Your task to perform on an android device: Clear the cart on ebay.com. Search for macbook pro on ebay.com, select the first entry, add it to the cart, then select checkout. Image 0: 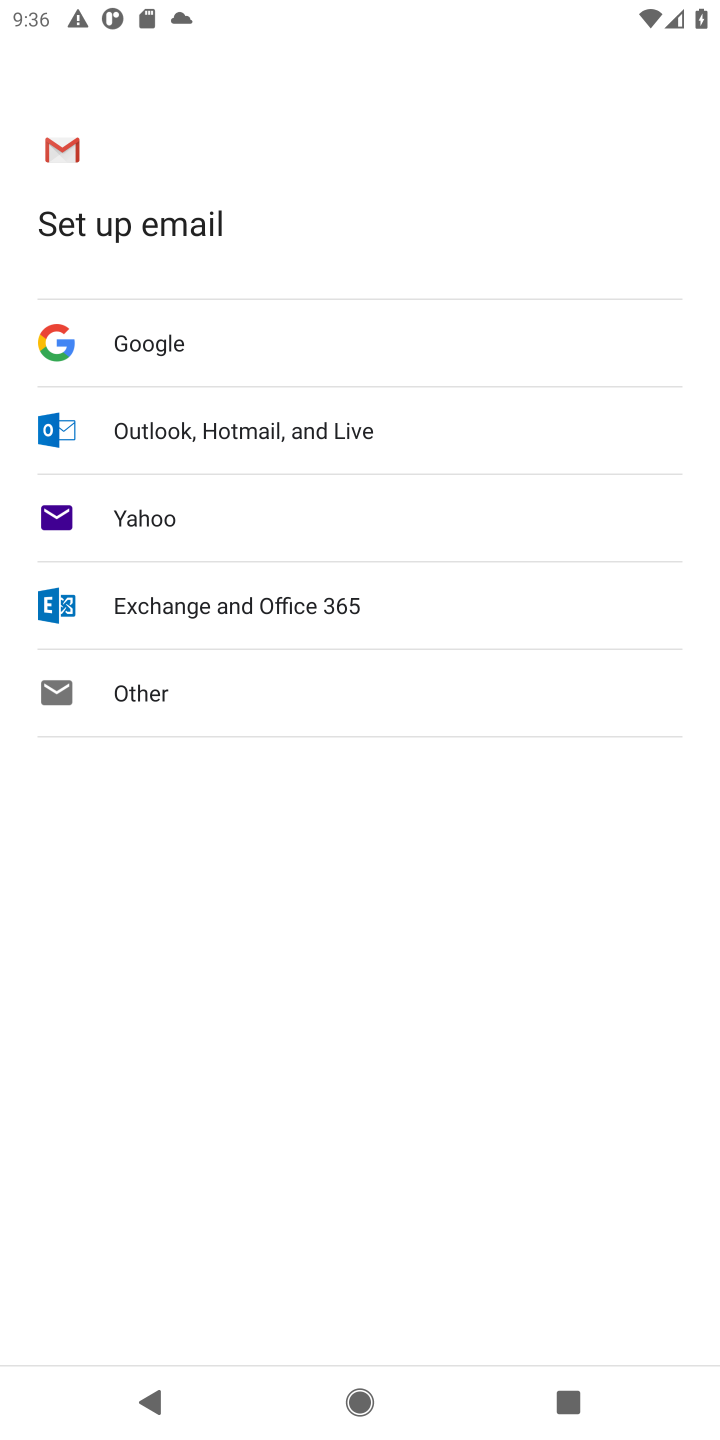
Step 0: press home button
Your task to perform on an android device: Clear the cart on ebay.com. Search for macbook pro on ebay.com, select the first entry, add it to the cart, then select checkout. Image 1: 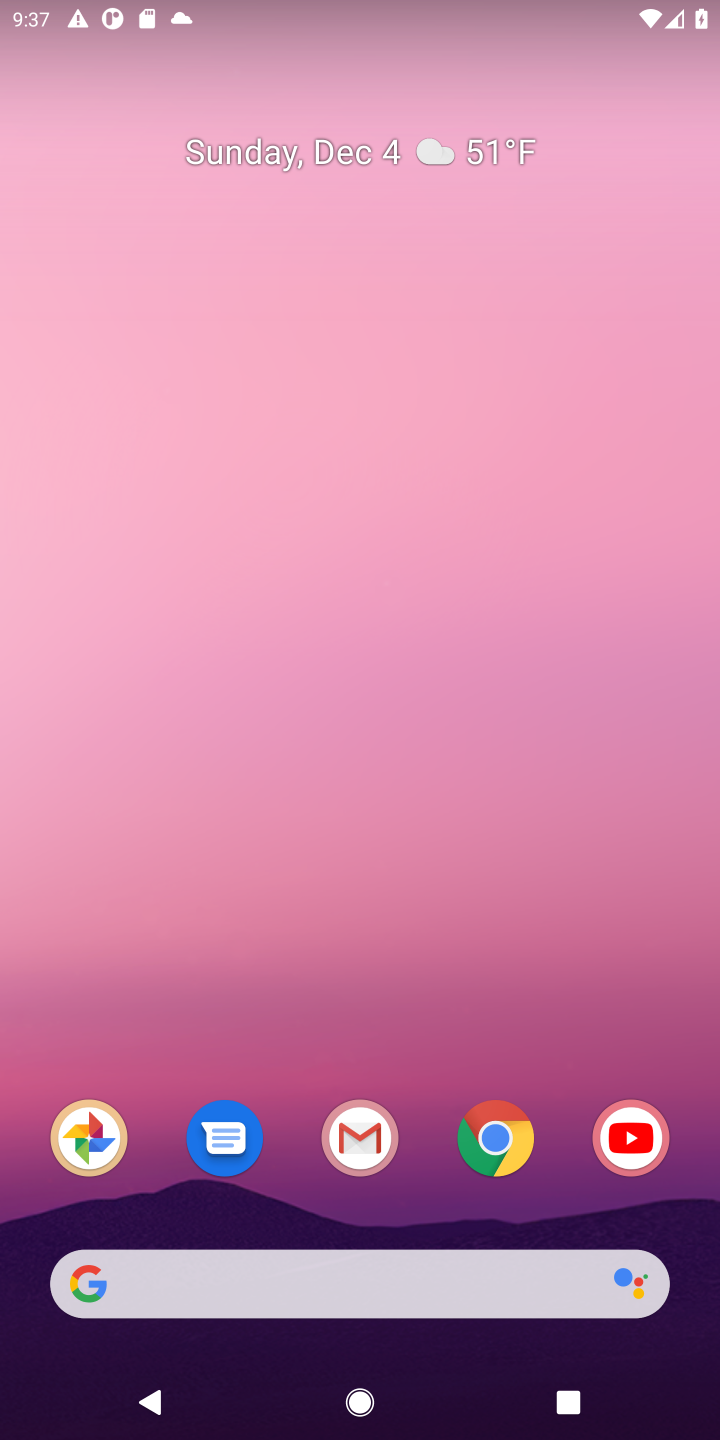
Step 1: click (486, 1139)
Your task to perform on an android device: Clear the cart on ebay.com. Search for macbook pro on ebay.com, select the first entry, add it to the cart, then select checkout. Image 2: 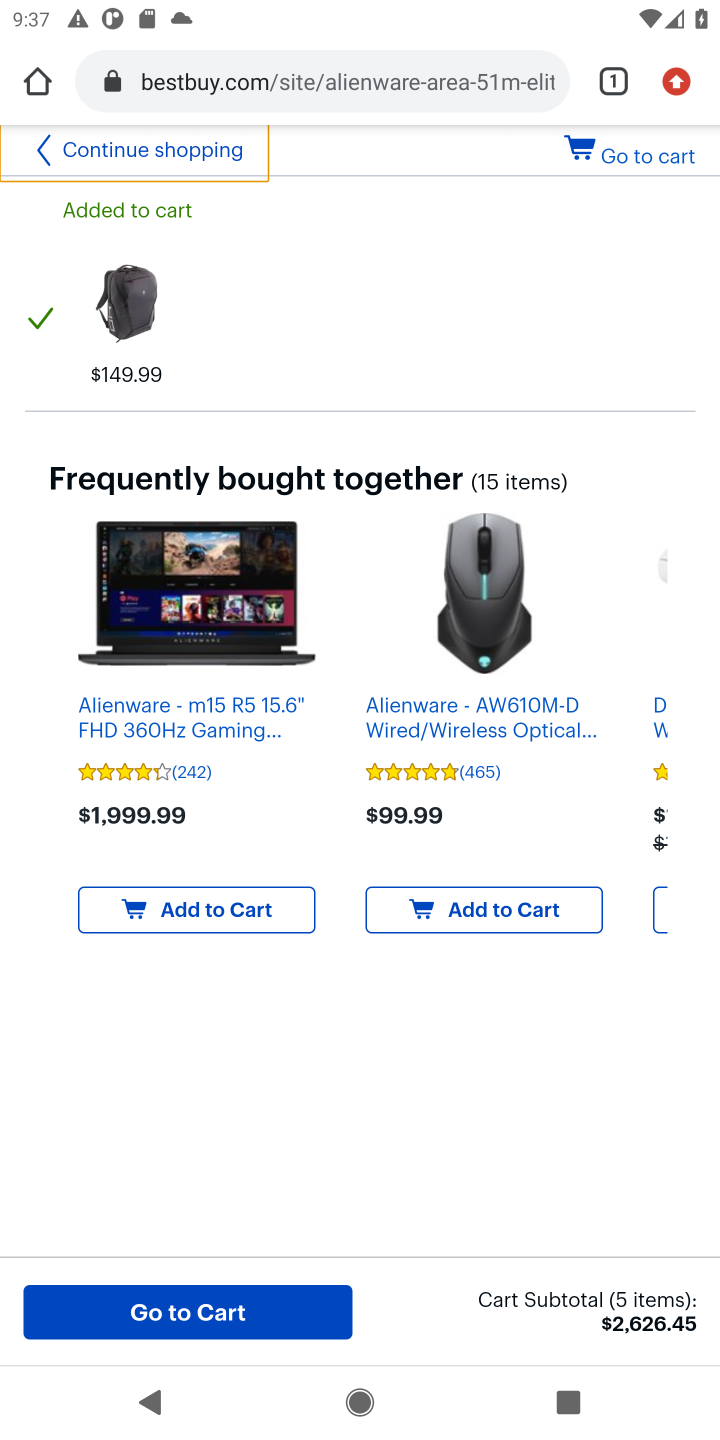
Step 2: click (485, 84)
Your task to perform on an android device: Clear the cart on ebay.com. Search for macbook pro on ebay.com, select the first entry, add it to the cart, then select checkout. Image 3: 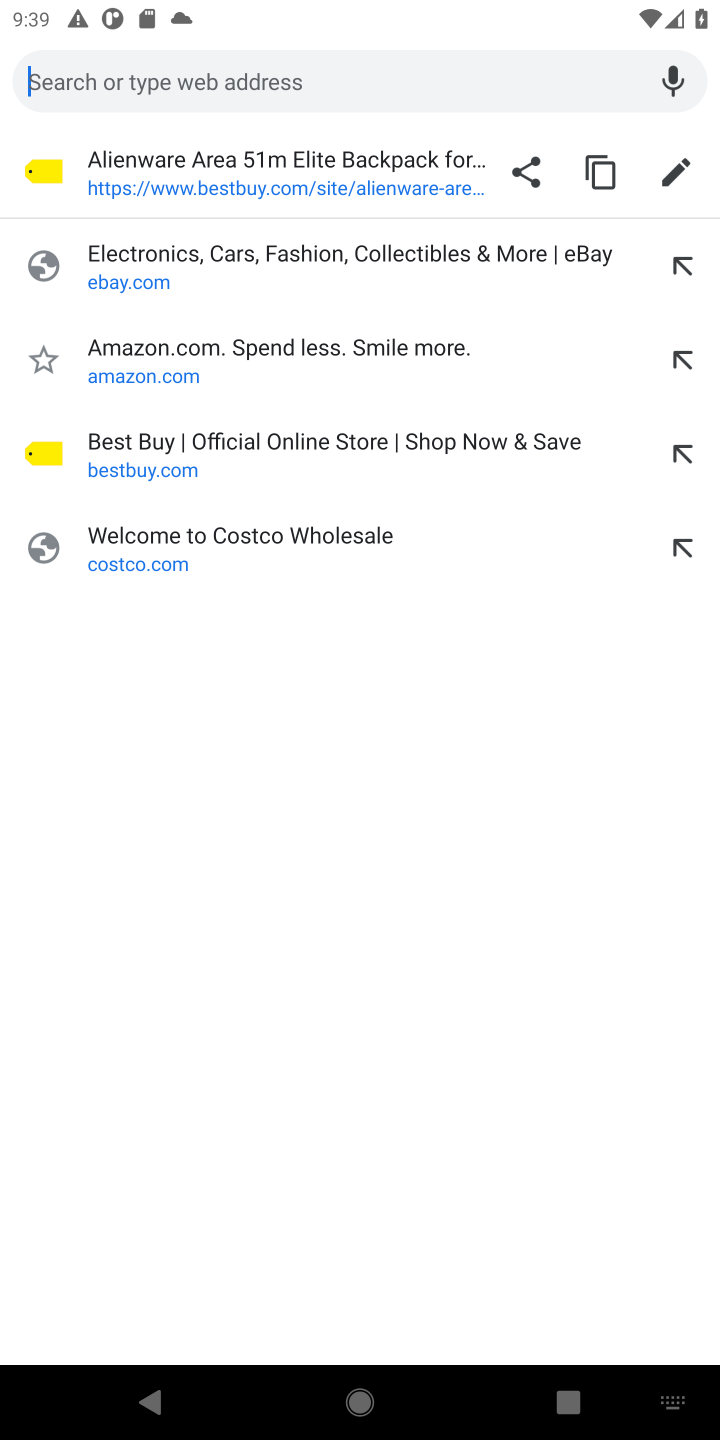
Step 3: click (126, 248)
Your task to perform on an android device: Clear the cart on ebay.com. Search for macbook pro on ebay.com, select the first entry, add it to the cart, then select checkout. Image 4: 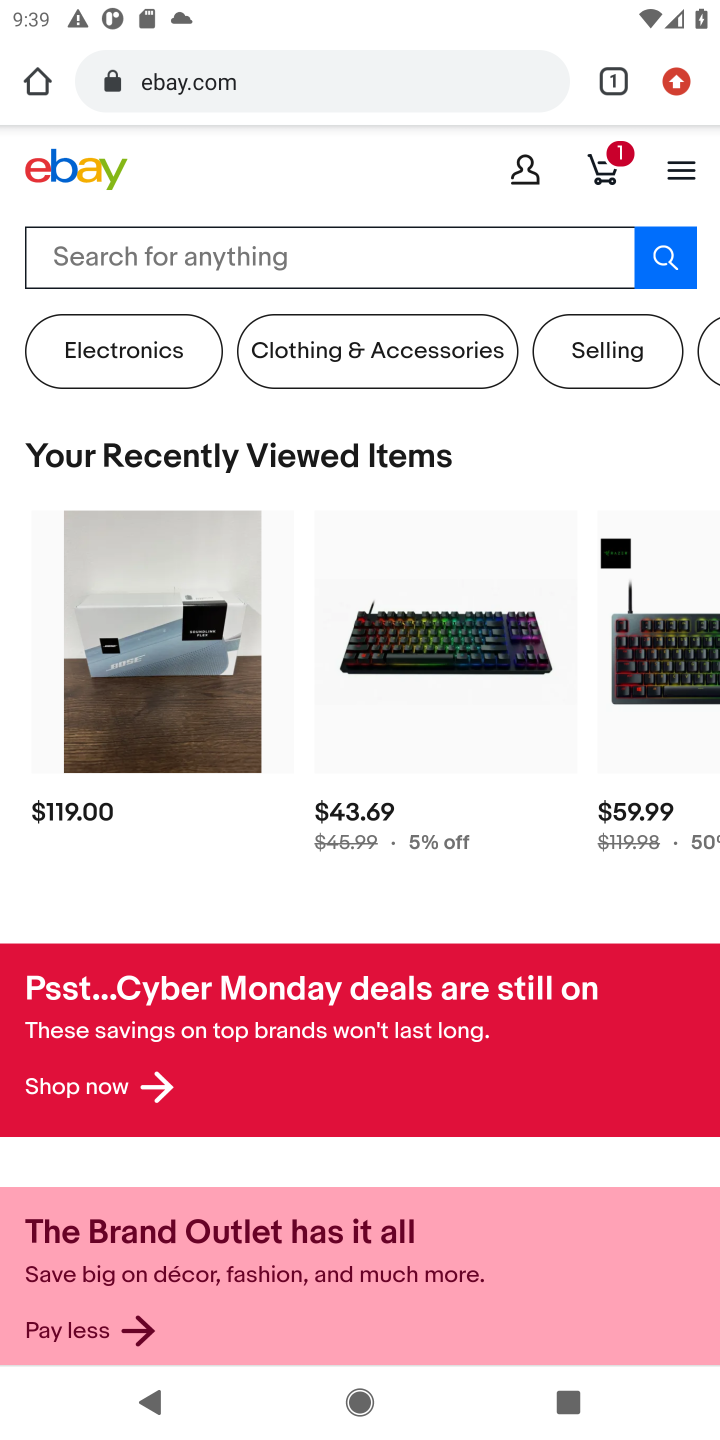
Step 4: click (610, 168)
Your task to perform on an android device: Clear the cart on ebay.com. Search for macbook pro on ebay.com, select the first entry, add it to the cart, then select checkout. Image 5: 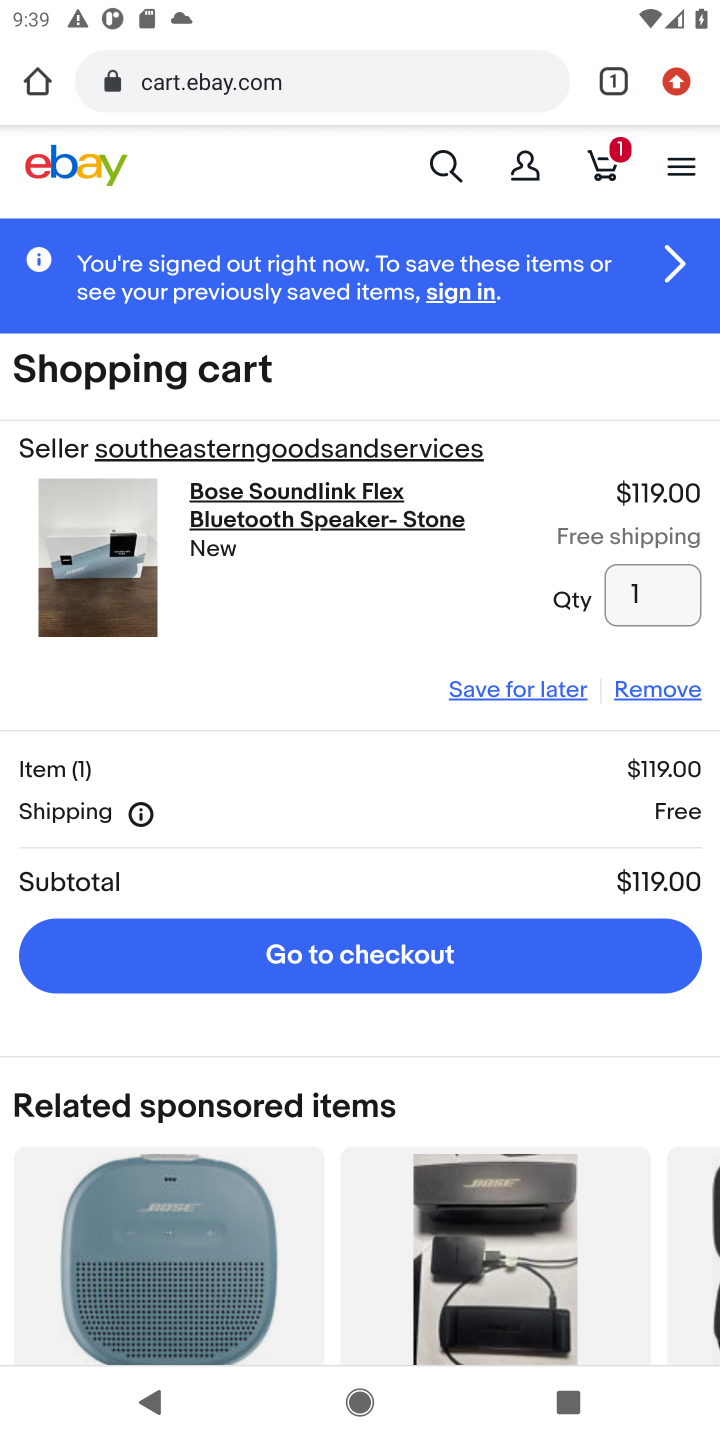
Step 5: click (640, 694)
Your task to perform on an android device: Clear the cart on ebay.com. Search for macbook pro on ebay.com, select the first entry, add it to the cart, then select checkout. Image 6: 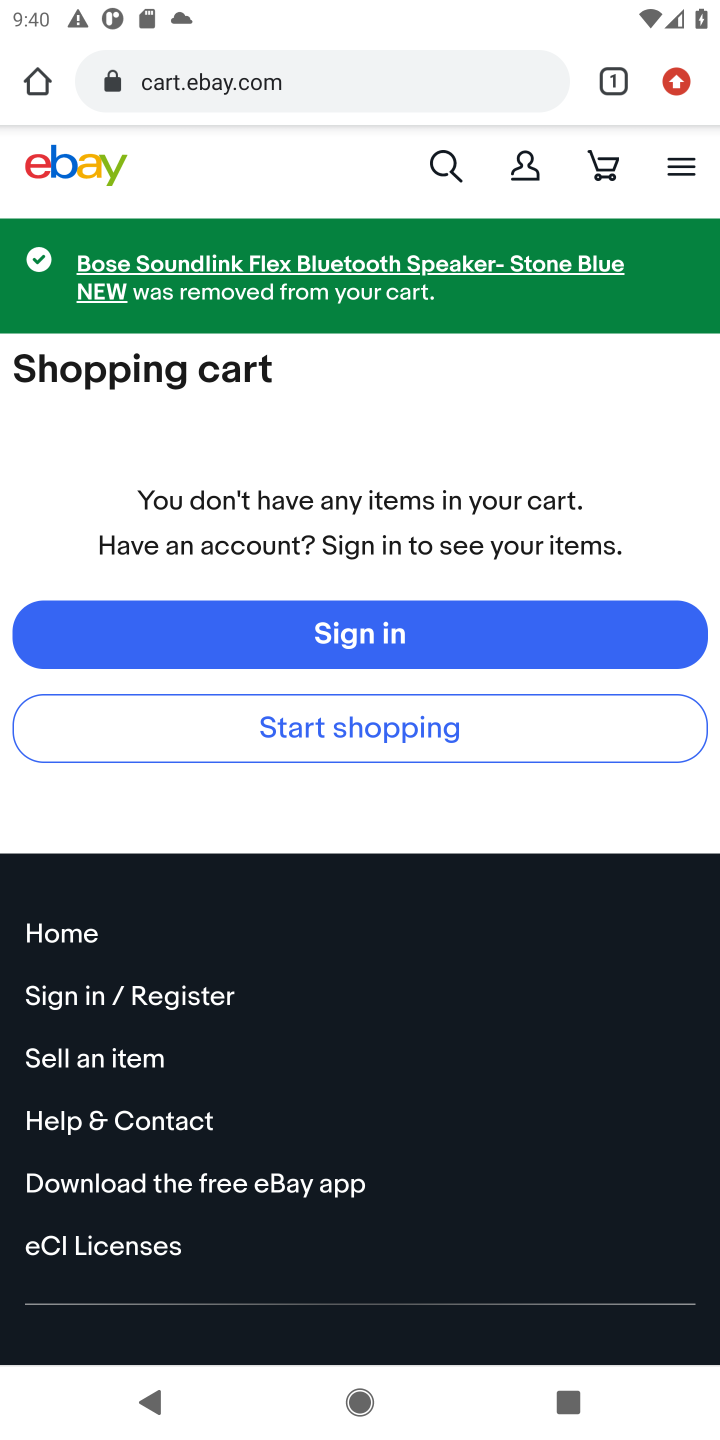
Step 6: click (440, 170)
Your task to perform on an android device: Clear the cart on ebay.com. Search for macbook pro on ebay.com, select the first entry, add it to the cart, then select checkout. Image 7: 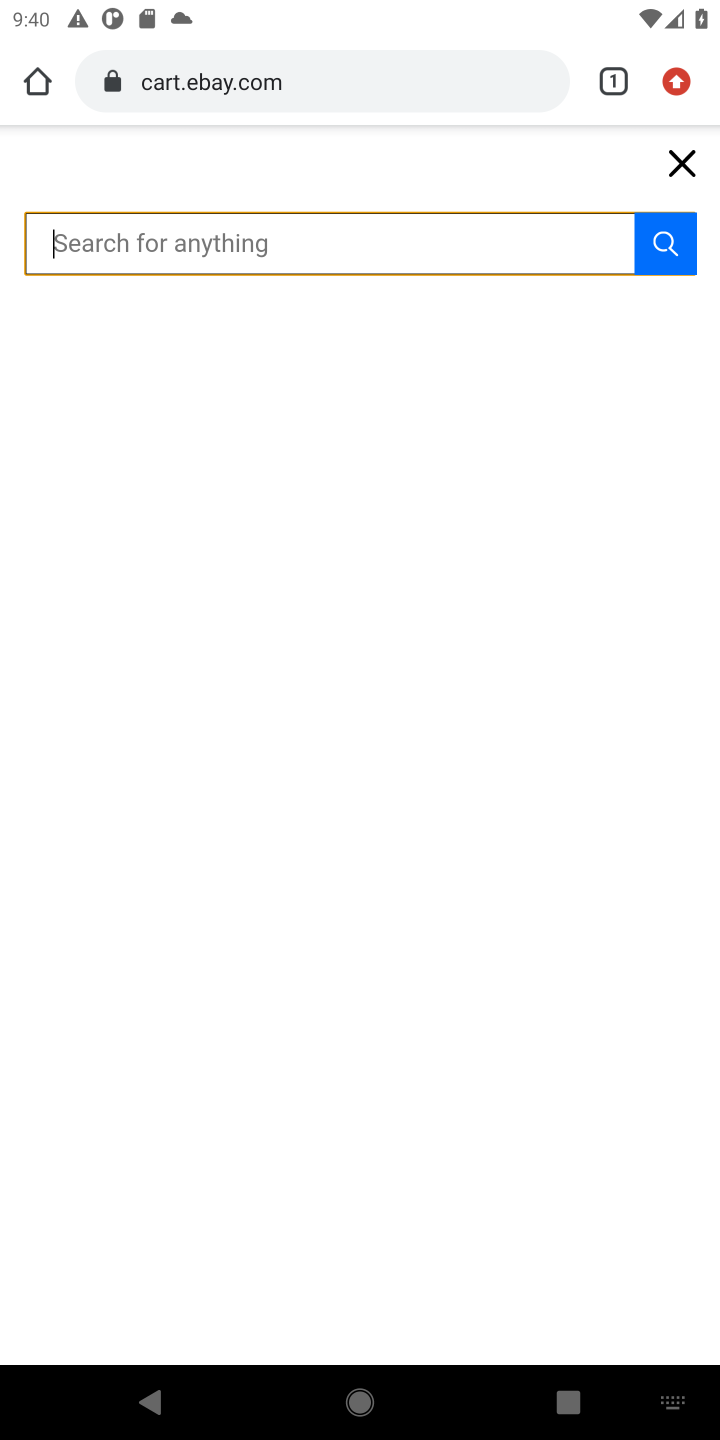
Step 7: press enter
Your task to perform on an android device: Clear the cart on ebay.com. Search for macbook pro on ebay.com, select the first entry, add it to the cart, then select checkout. Image 8: 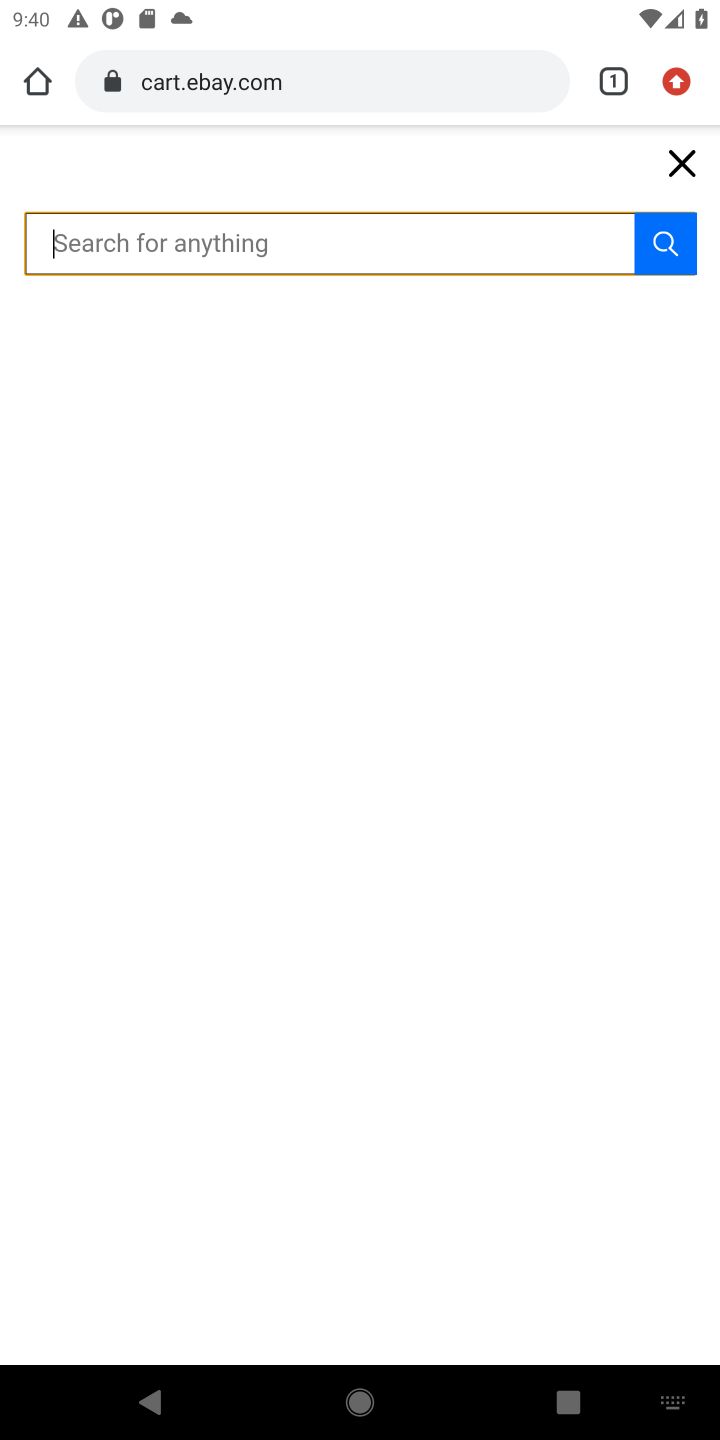
Step 8: type "macbook pro"
Your task to perform on an android device: Clear the cart on ebay.com. Search for macbook pro on ebay.com, select the first entry, add it to the cart, then select checkout. Image 9: 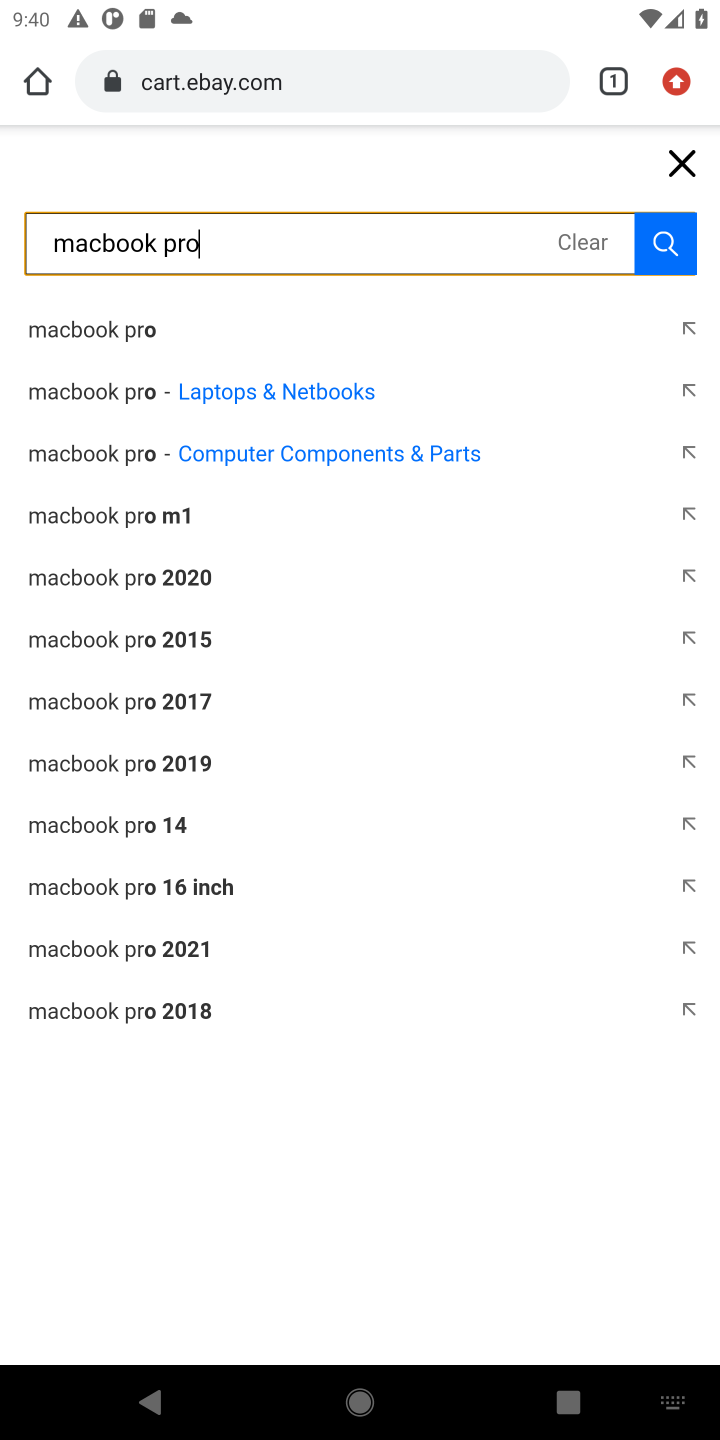
Step 9: click (124, 322)
Your task to perform on an android device: Clear the cart on ebay.com. Search for macbook pro on ebay.com, select the first entry, add it to the cart, then select checkout. Image 10: 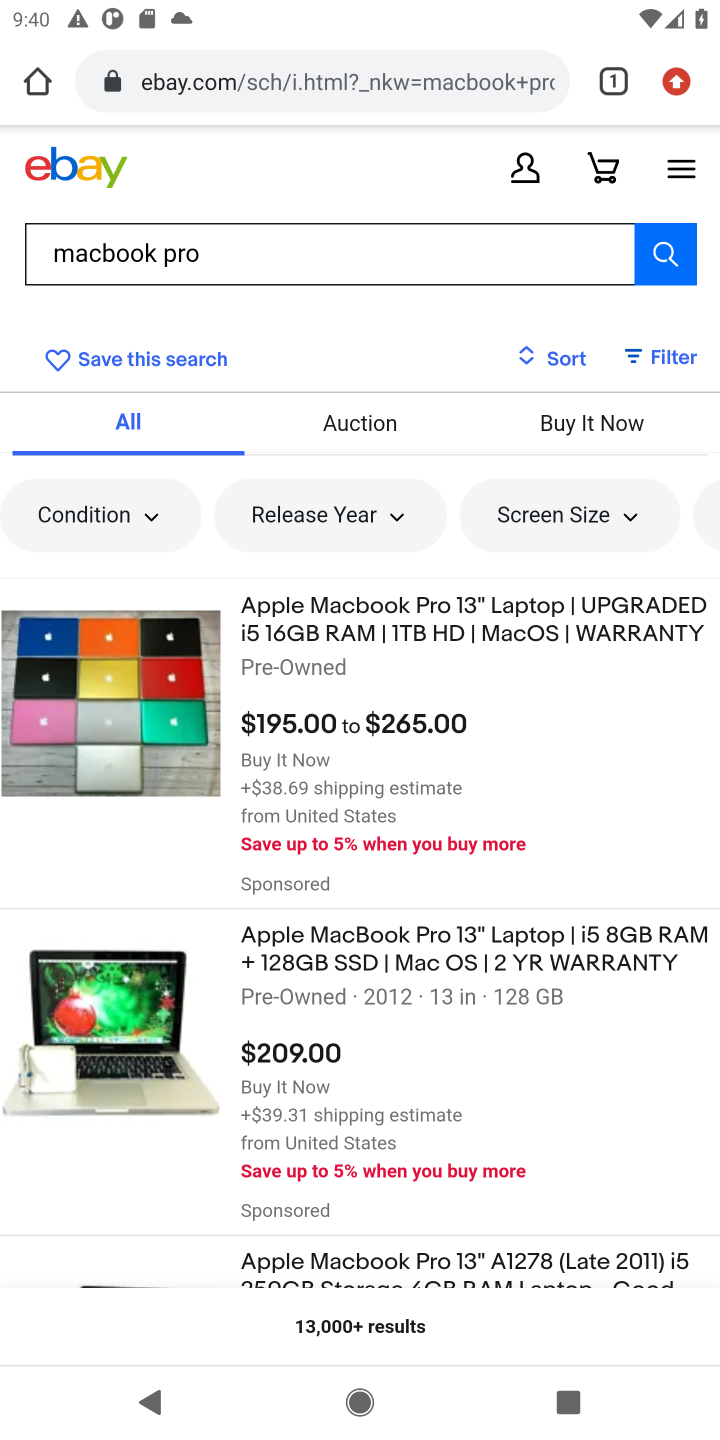
Step 10: drag from (407, 1030) to (351, 684)
Your task to perform on an android device: Clear the cart on ebay.com. Search for macbook pro on ebay.com, select the first entry, add it to the cart, then select checkout. Image 11: 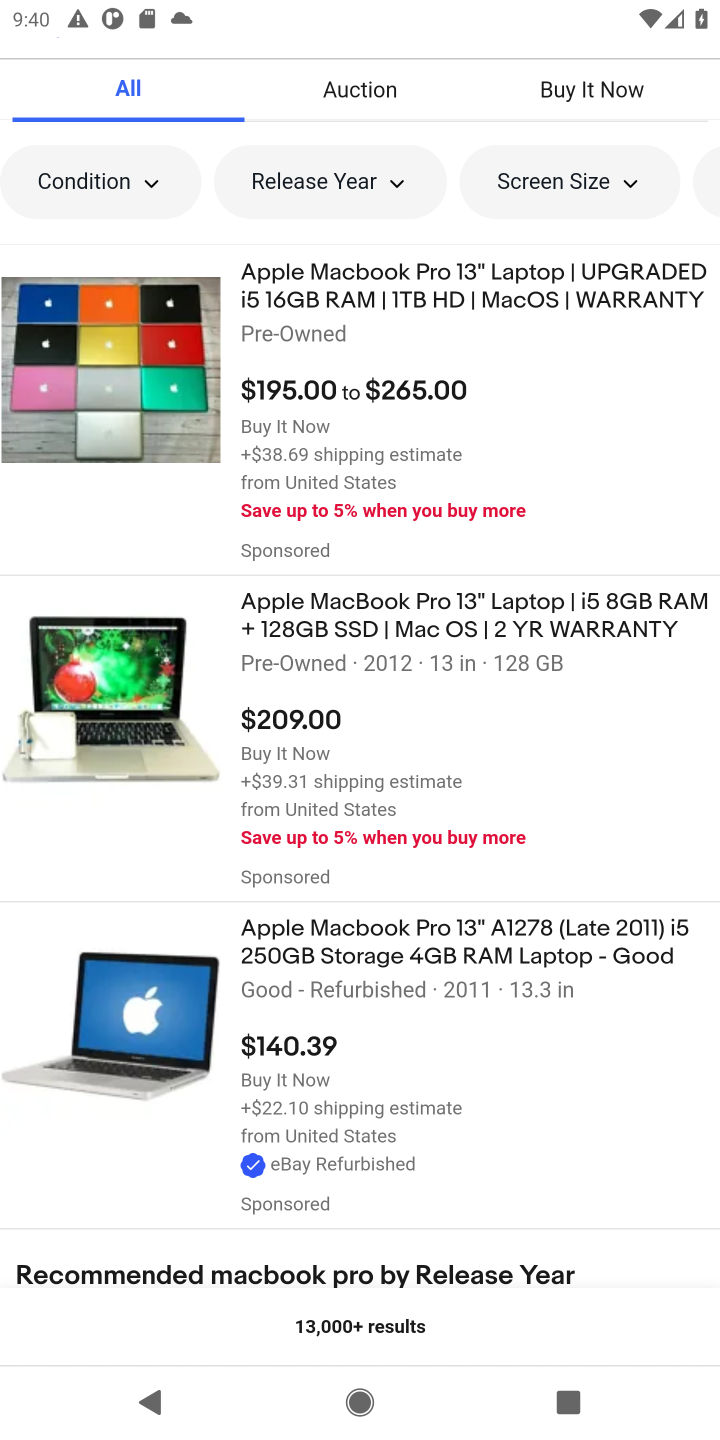
Step 11: drag from (489, 1004) to (443, 412)
Your task to perform on an android device: Clear the cart on ebay.com. Search for macbook pro on ebay.com, select the first entry, add it to the cart, then select checkout. Image 12: 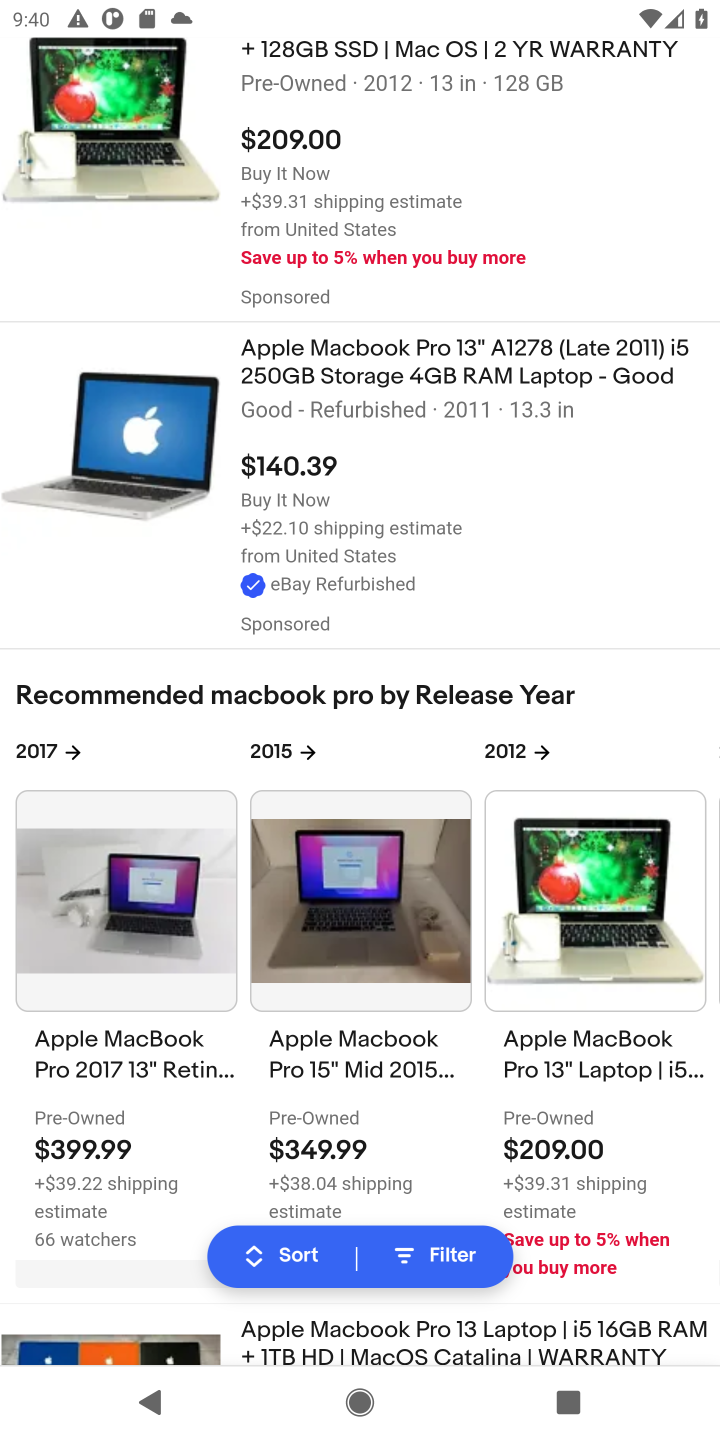
Step 12: drag from (523, 672) to (587, 426)
Your task to perform on an android device: Clear the cart on ebay.com. Search for macbook pro on ebay.com, select the first entry, add it to the cart, then select checkout. Image 13: 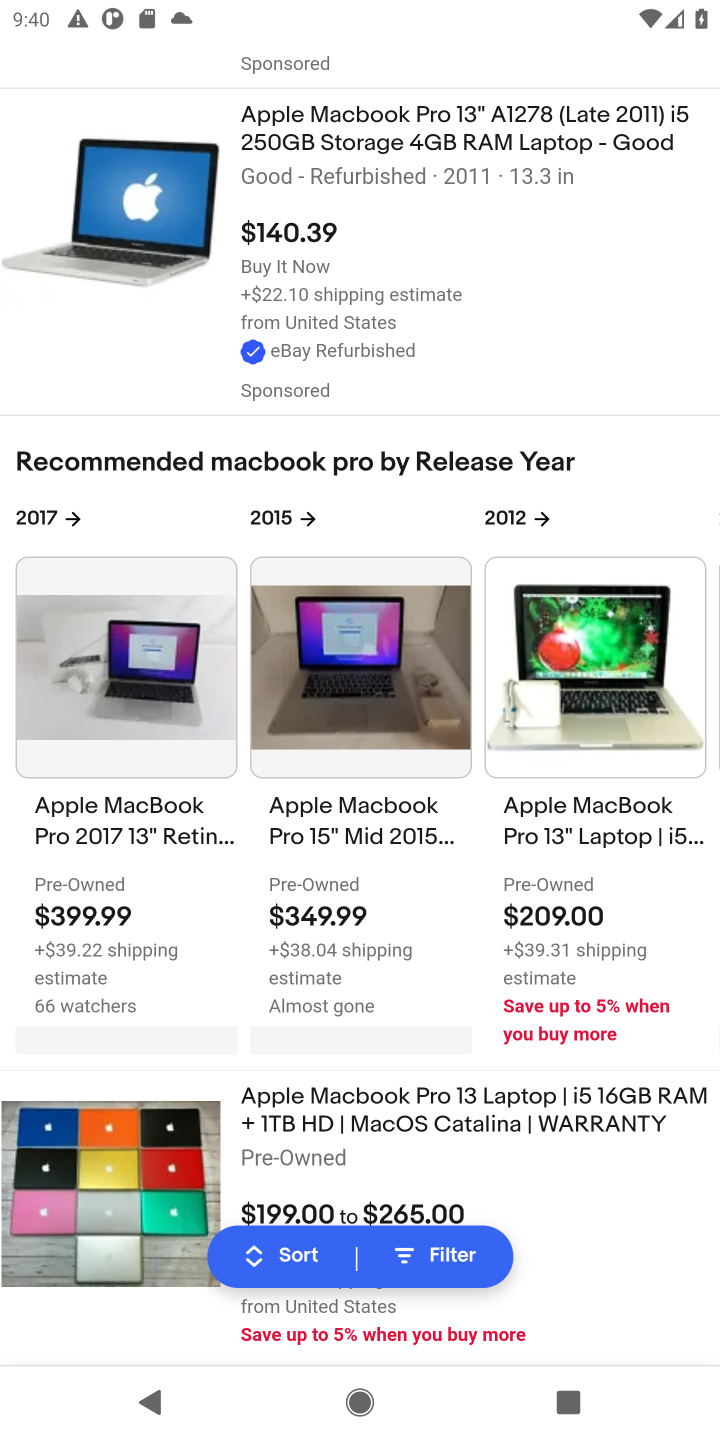
Step 13: drag from (460, 421) to (704, 1227)
Your task to perform on an android device: Clear the cart on ebay.com. Search for macbook pro on ebay.com, select the first entry, add it to the cart, then select checkout. Image 14: 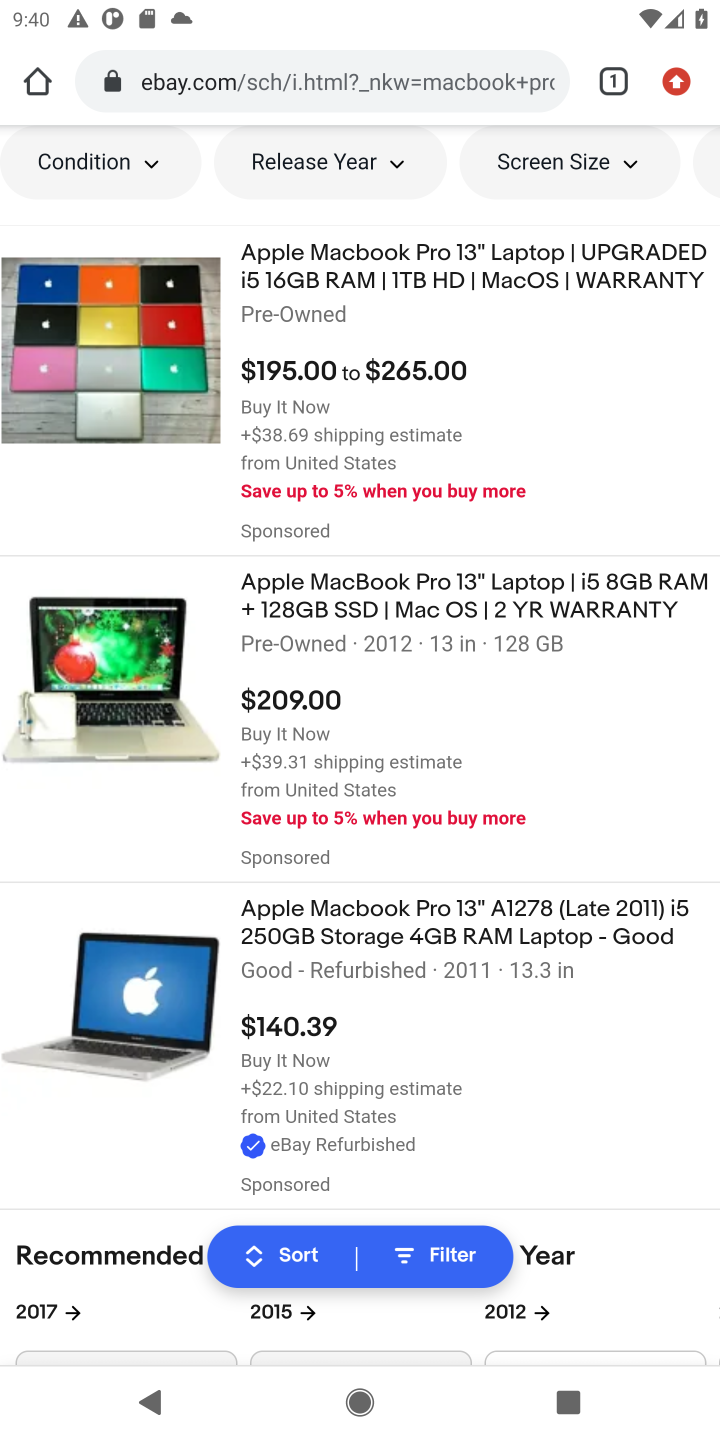
Step 14: drag from (481, 282) to (632, 937)
Your task to perform on an android device: Clear the cart on ebay.com. Search for macbook pro on ebay.com, select the first entry, add it to the cart, then select checkout. Image 15: 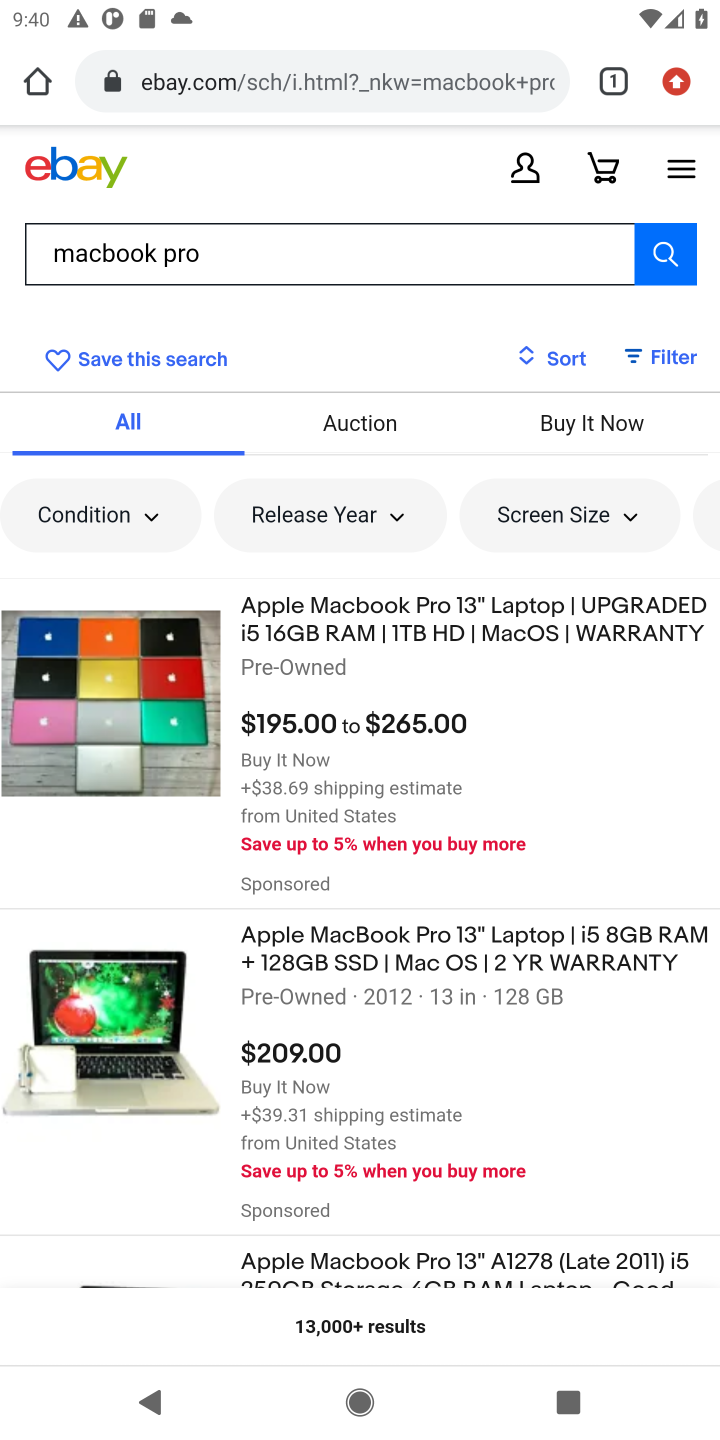
Step 15: click (127, 1023)
Your task to perform on an android device: Clear the cart on ebay.com. Search for macbook pro on ebay.com, select the first entry, add it to the cart, then select checkout. Image 16: 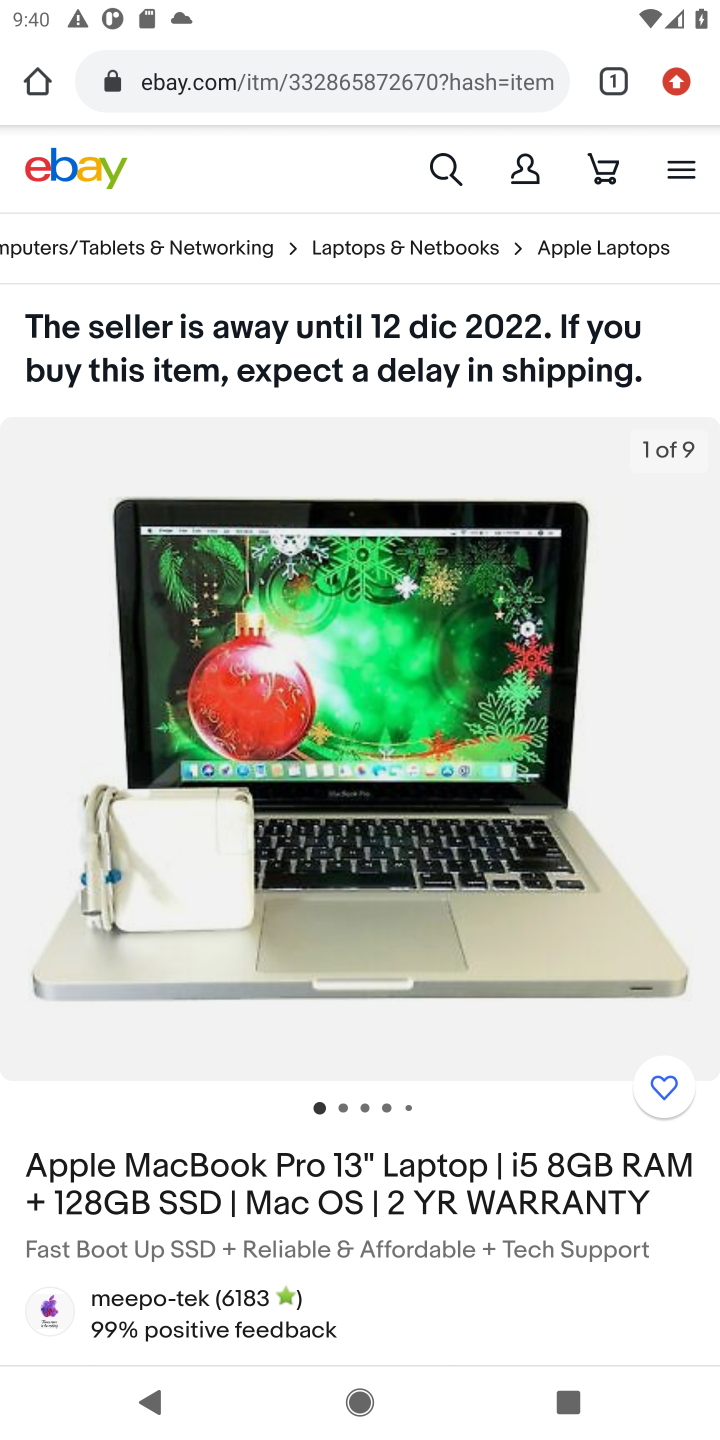
Step 16: drag from (497, 1029) to (473, 303)
Your task to perform on an android device: Clear the cart on ebay.com. Search for macbook pro on ebay.com, select the first entry, add it to the cart, then select checkout. Image 17: 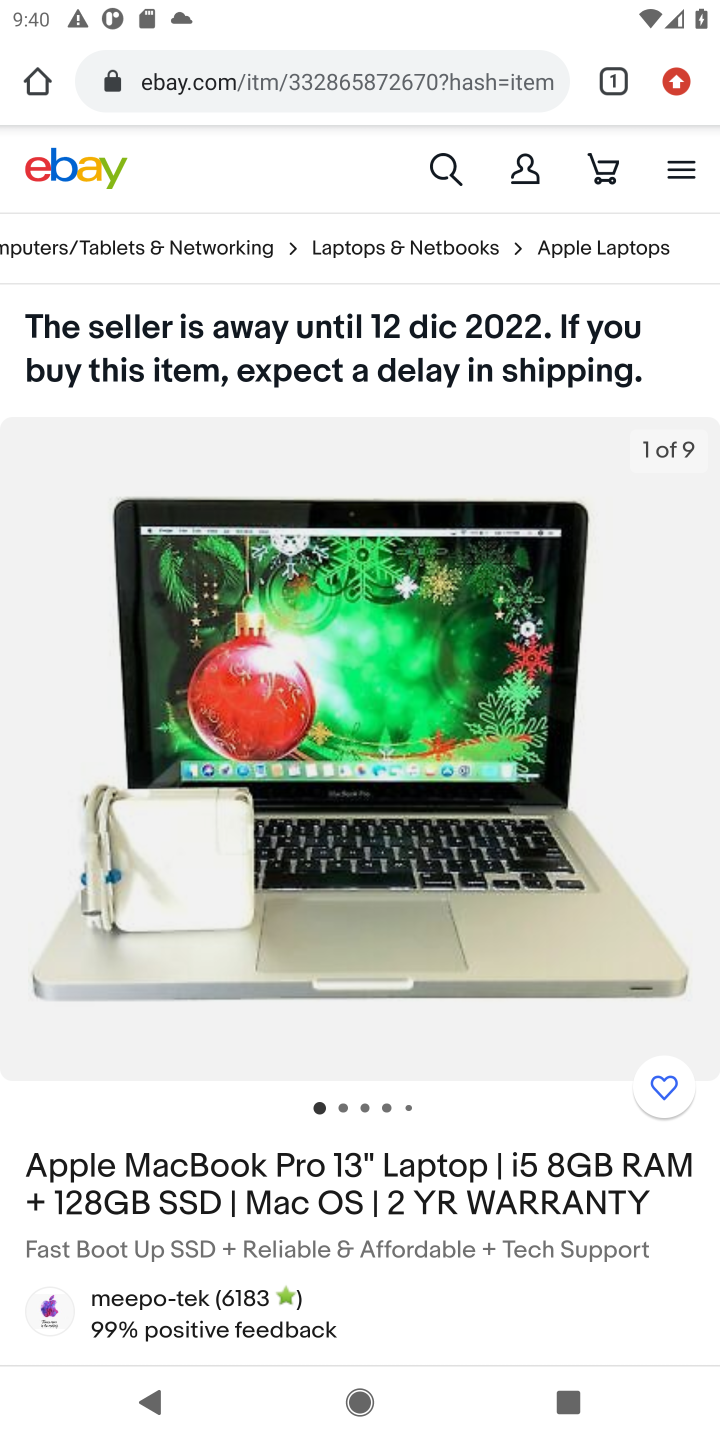
Step 17: drag from (348, 1062) to (432, 356)
Your task to perform on an android device: Clear the cart on ebay.com. Search for macbook pro on ebay.com, select the first entry, add it to the cart, then select checkout. Image 18: 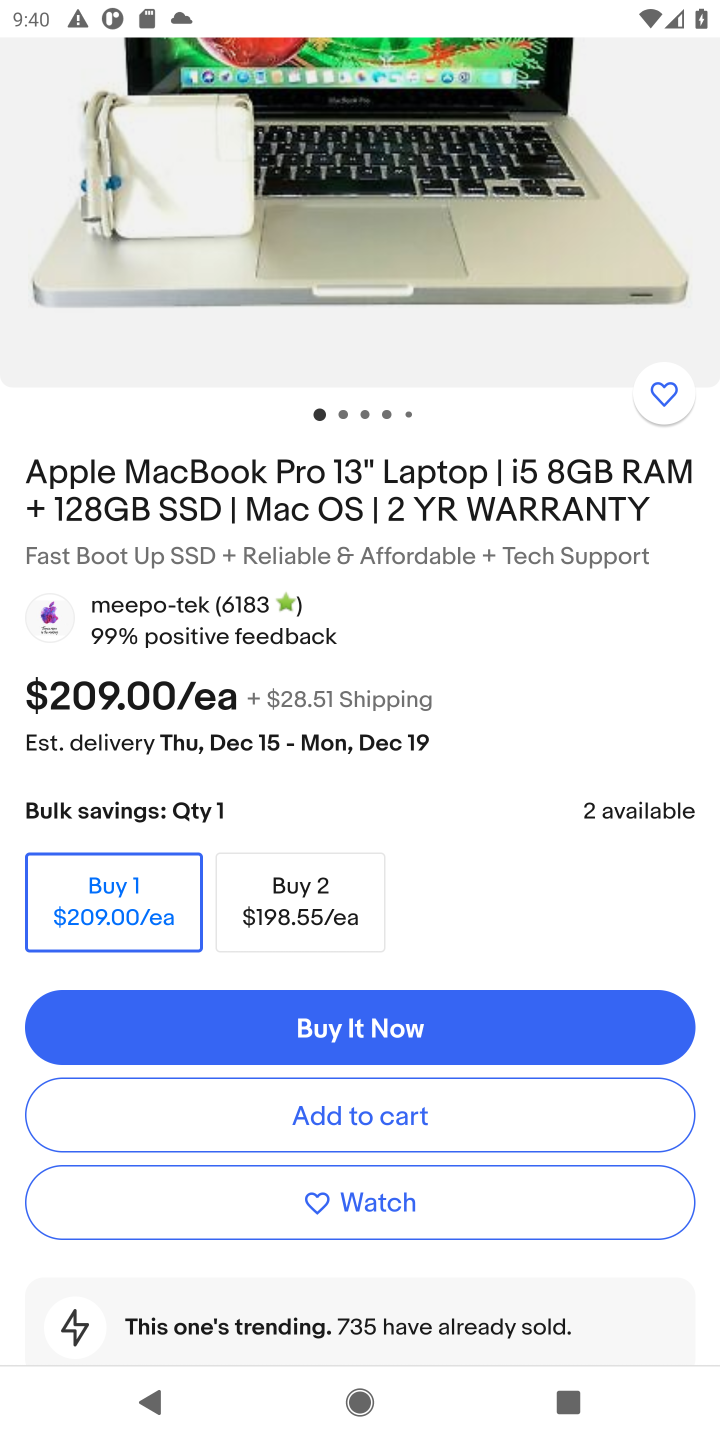
Step 18: click (341, 1107)
Your task to perform on an android device: Clear the cart on ebay.com. Search for macbook pro on ebay.com, select the first entry, add it to the cart, then select checkout. Image 19: 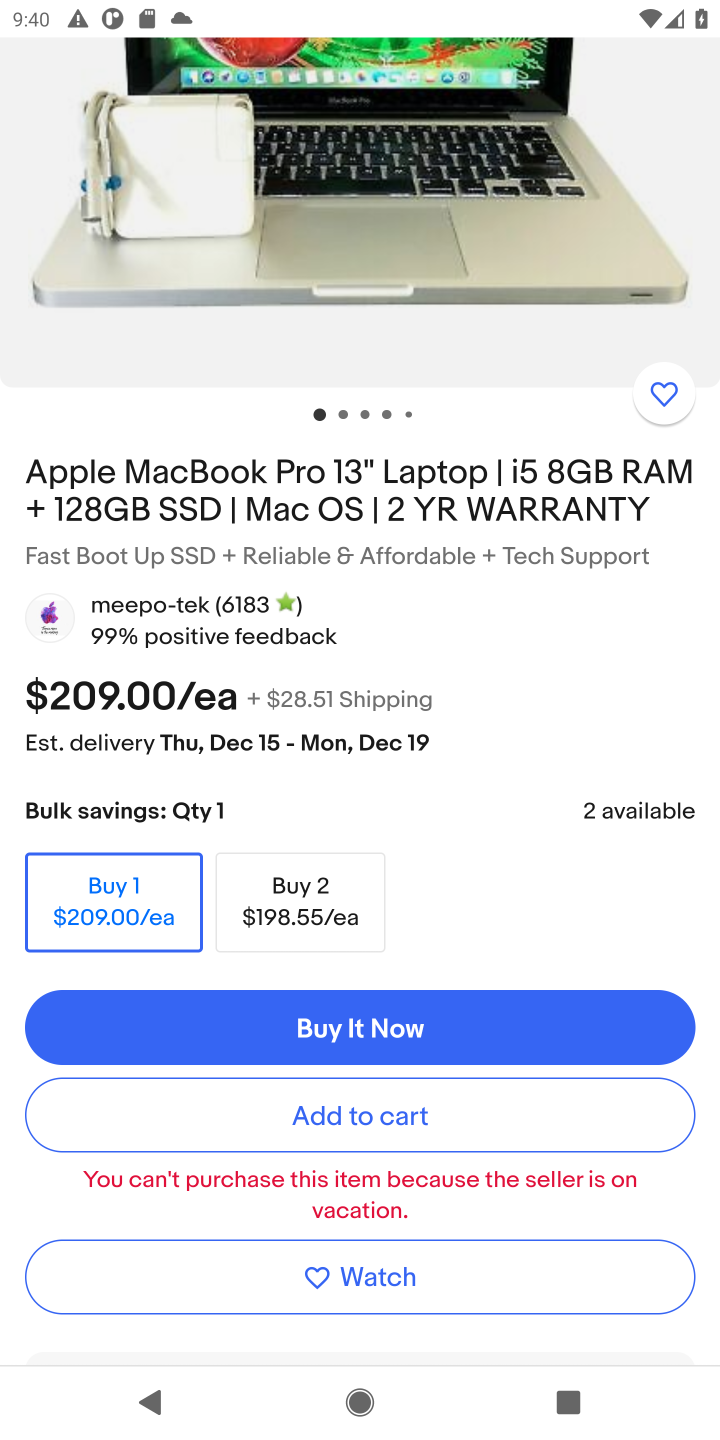
Step 19: press back button
Your task to perform on an android device: Clear the cart on ebay.com. Search for macbook pro on ebay.com, select the first entry, add it to the cart, then select checkout. Image 20: 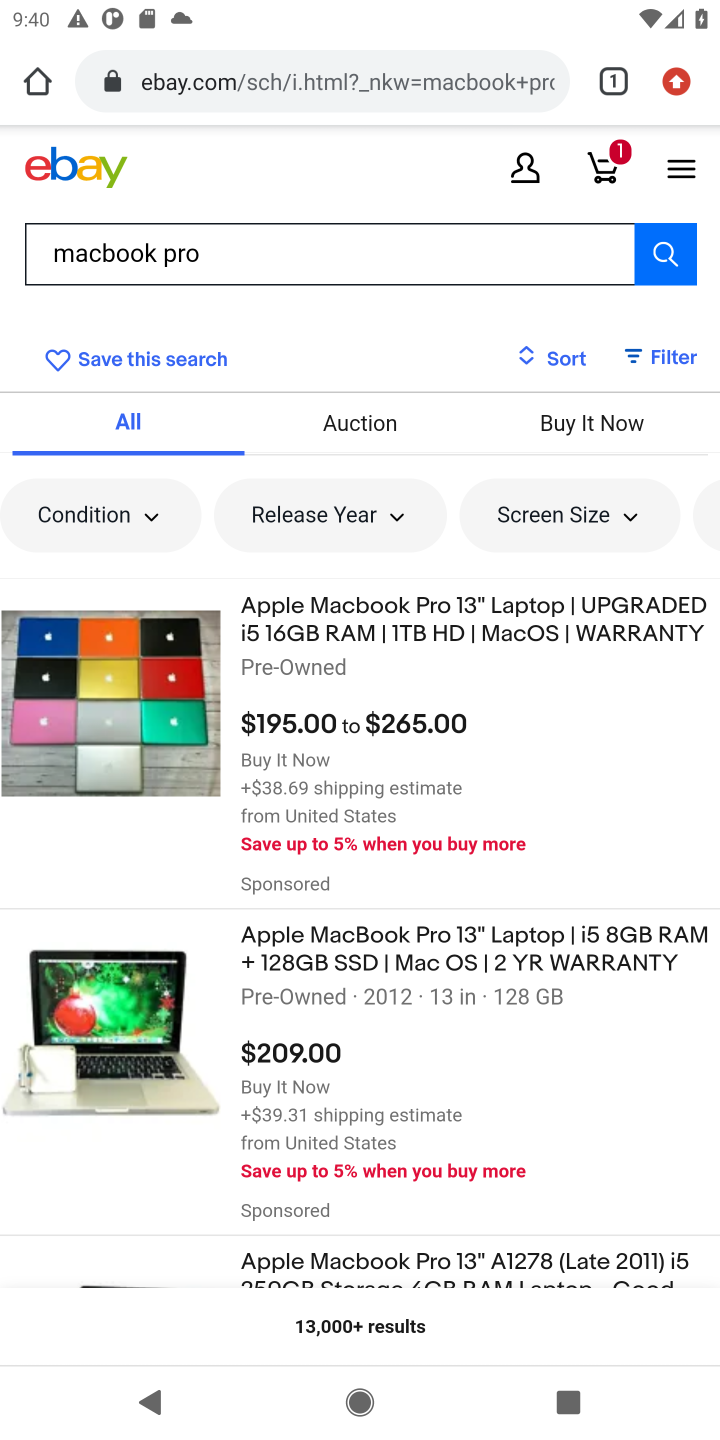
Step 20: drag from (457, 785) to (545, 237)
Your task to perform on an android device: Clear the cart on ebay.com. Search for macbook pro on ebay.com, select the first entry, add it to the cart, then select checkout. Image 21: 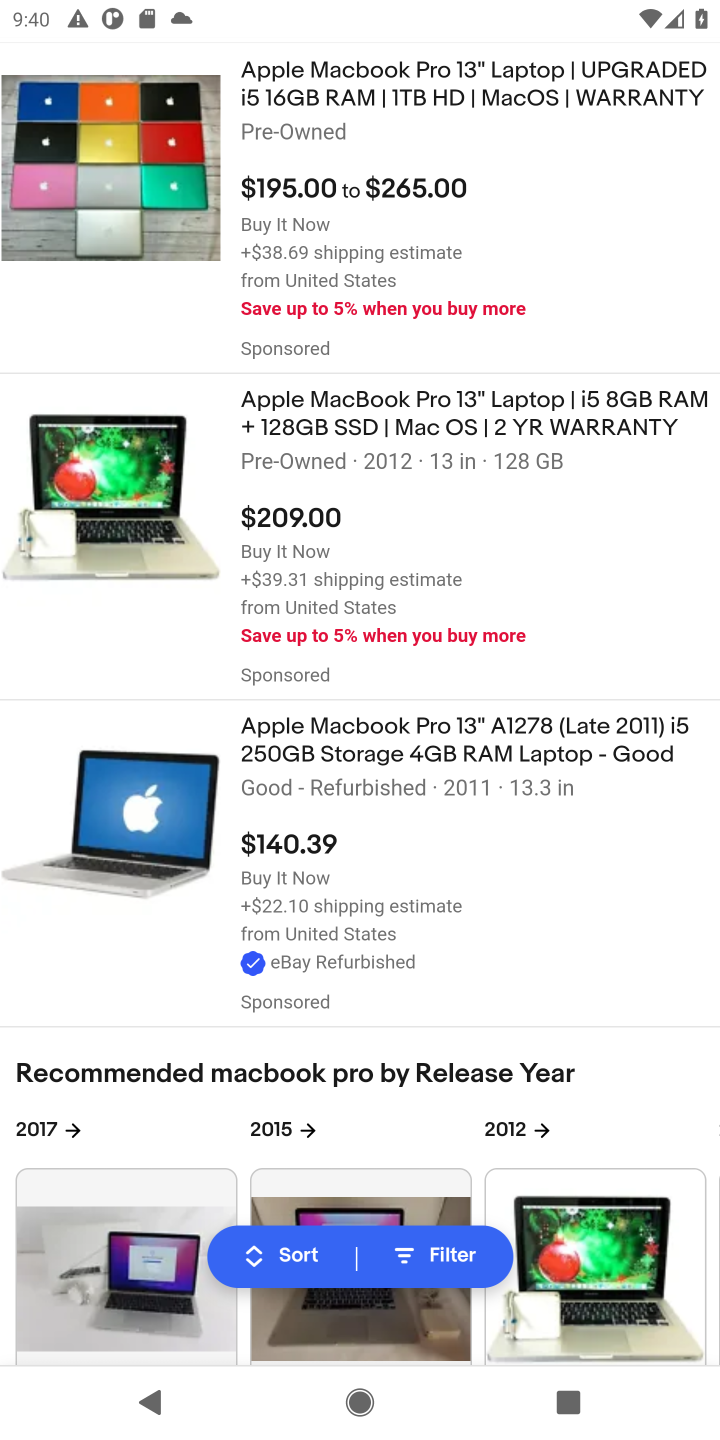
Step 21: click (116, 794)
Your task to perform on an android device: Clear the cart on ebay.com. Search for macbook pro on ebay.com, select the first entry, add it to the cart, then select checkout. Image 22: 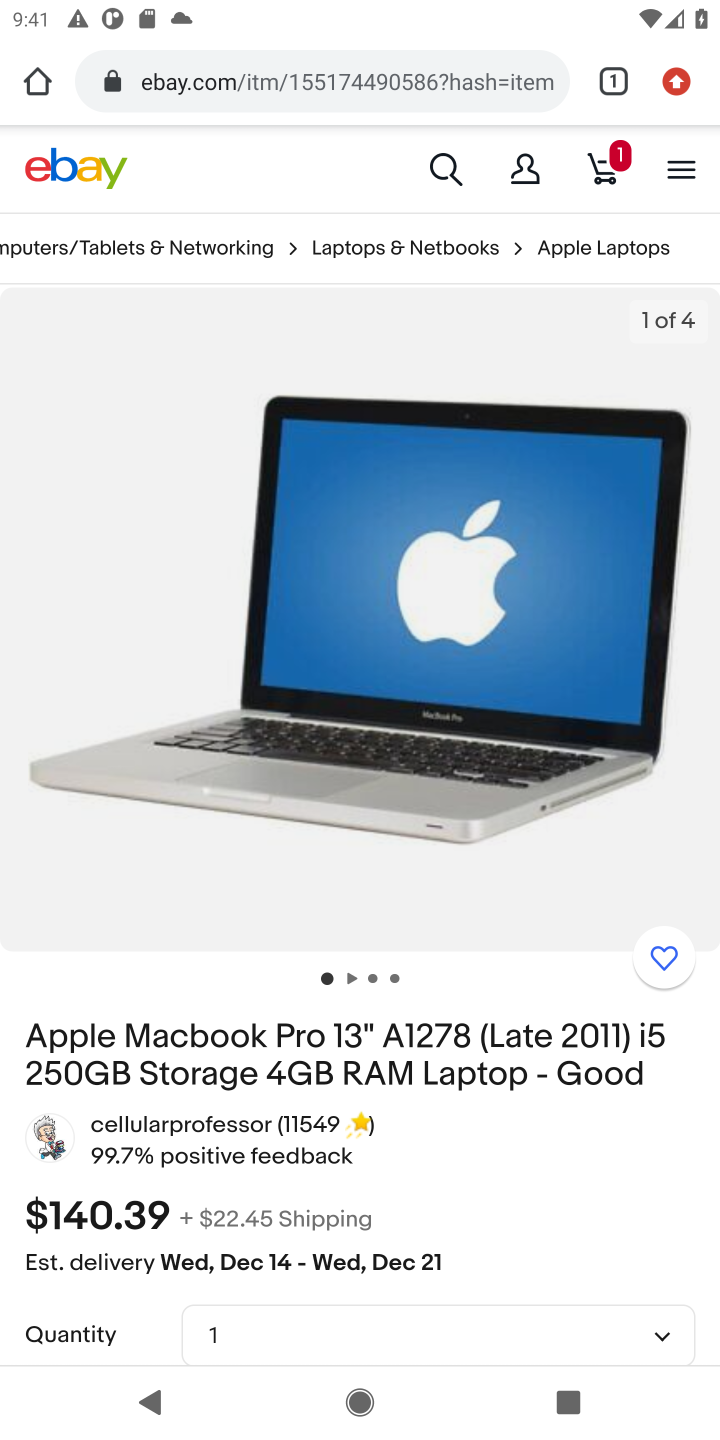
Step 22: drag from (432, 791) to (482, 499)
Your task to perform on an android device: Clear the cart on ebay.com. Search for macbook pro on ebay.com, select the first entry, add it to the cart, then select checkout. Image 23: 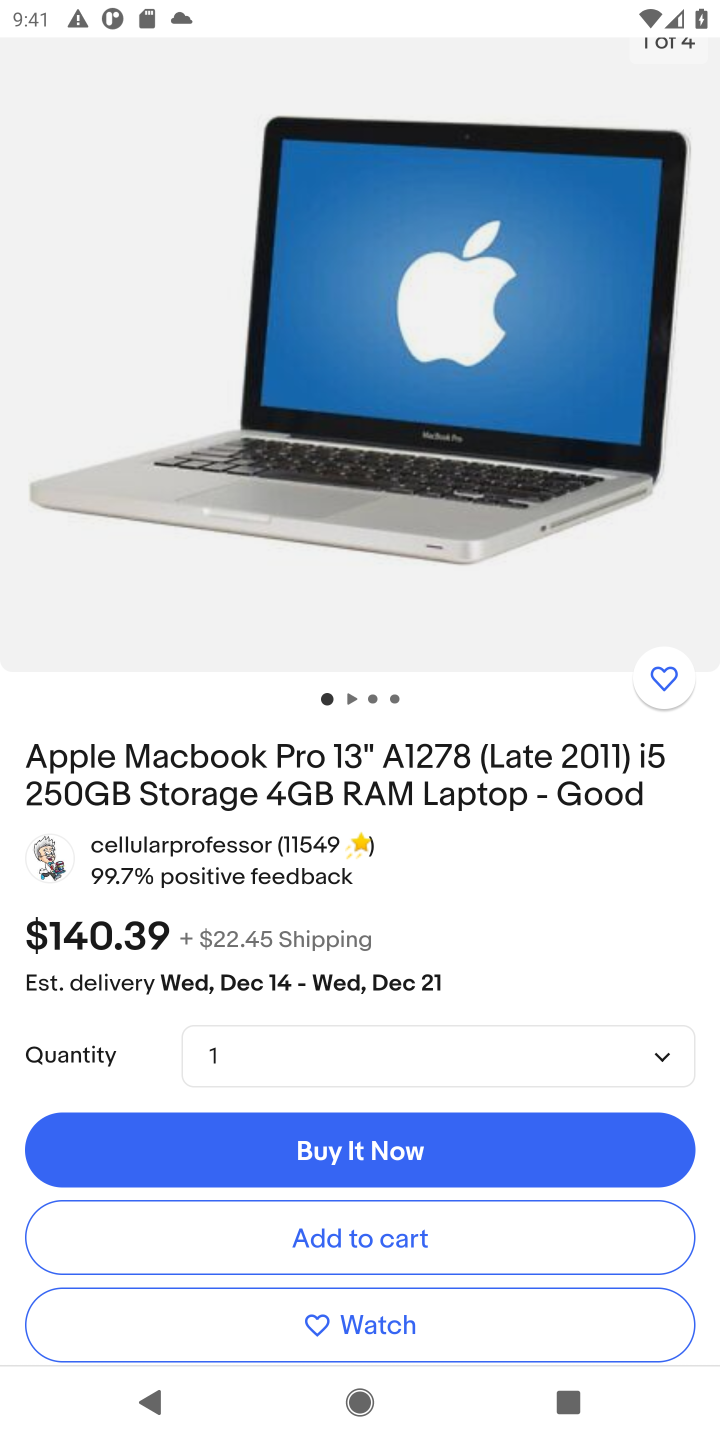
Step 23: click (316, 1237)
Your task to perform on an android device: Clear the cart on ebay.com. Search for macbook pro on ebay.com, select the first entry, add it to the cart, then select checkout. Image 24: 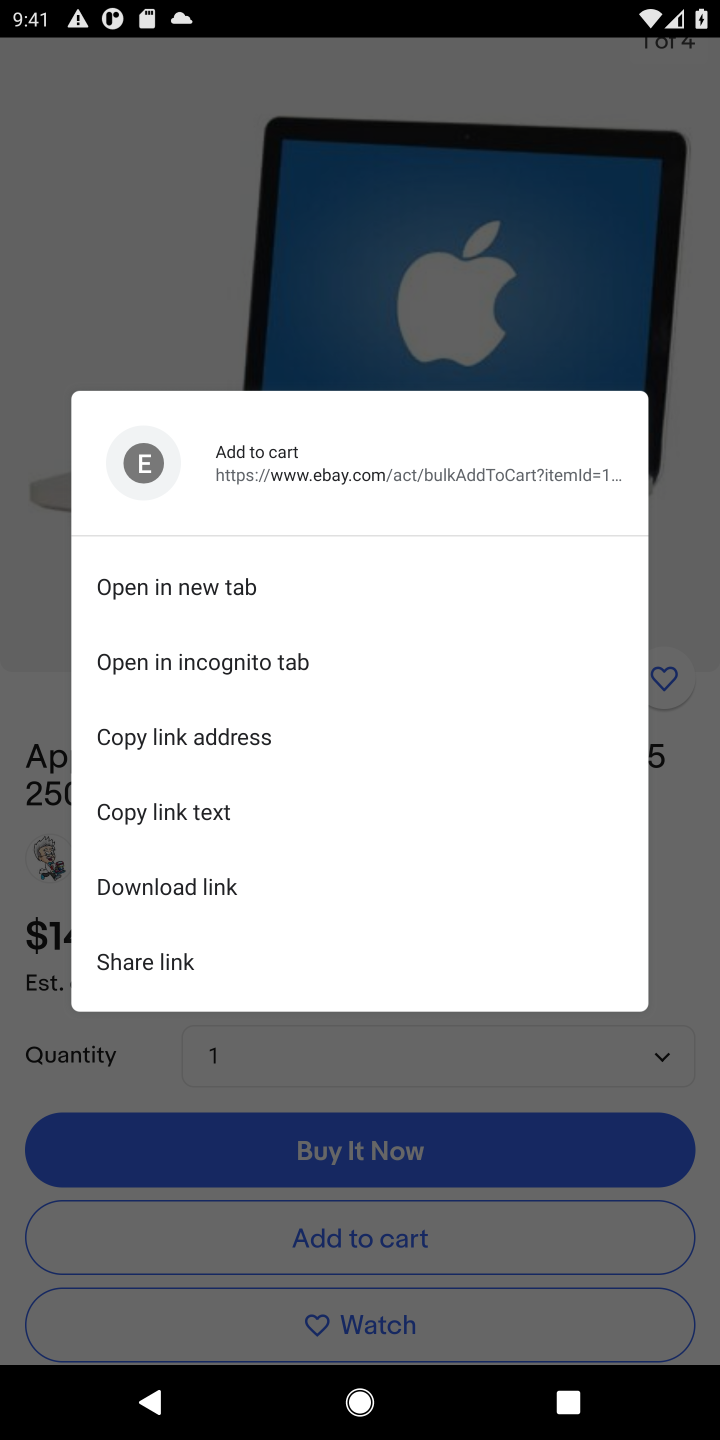
Step 24: click (314, 1230)
Your task to perform on an android device: Clear the cart on ebay.com. Search for macbook pro on ebay.com, select the first entry, add it to the cart, then select checkout. Image 25: 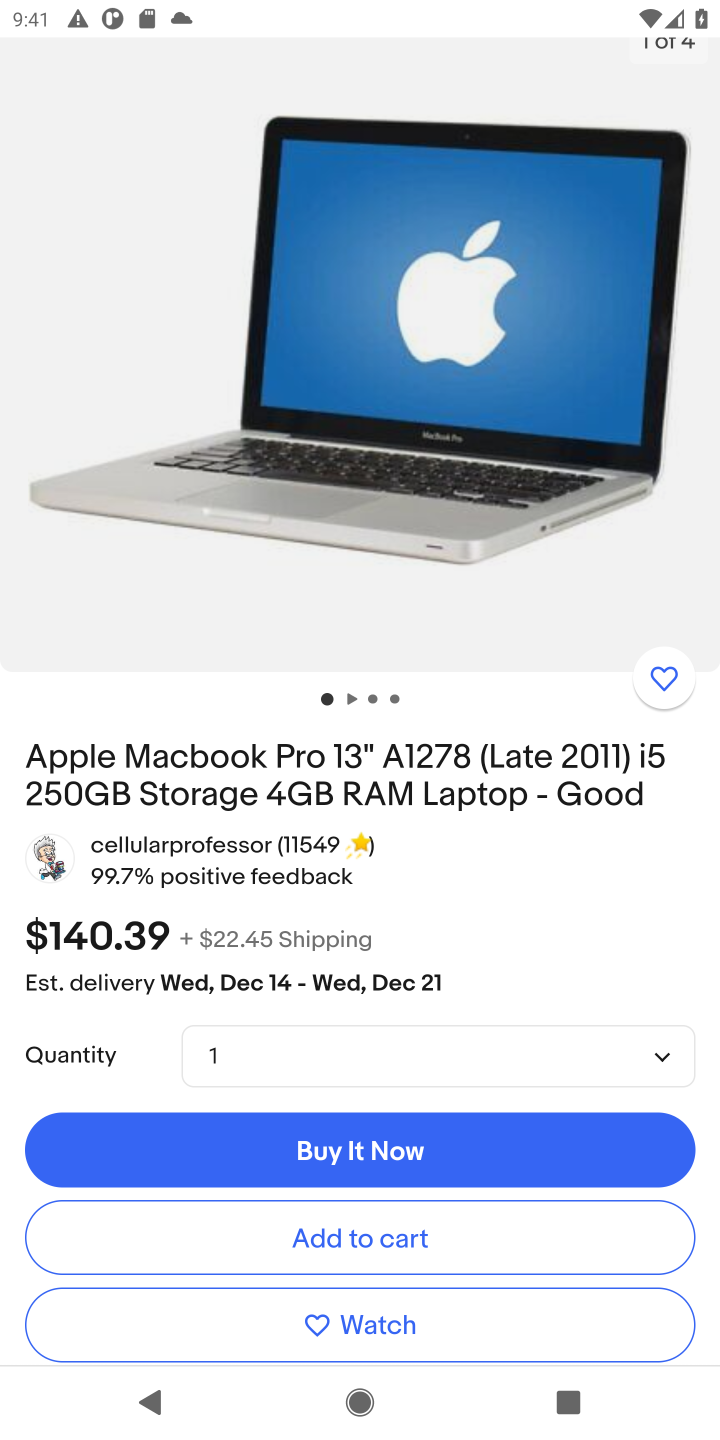
Step 25: click (314, 1230)
Your task to perform on an android device: Clear the cart on ebay.com. Search for macbook pro on ebay.com, select the first entry, add it to the cart, then select checkout. Image 26: 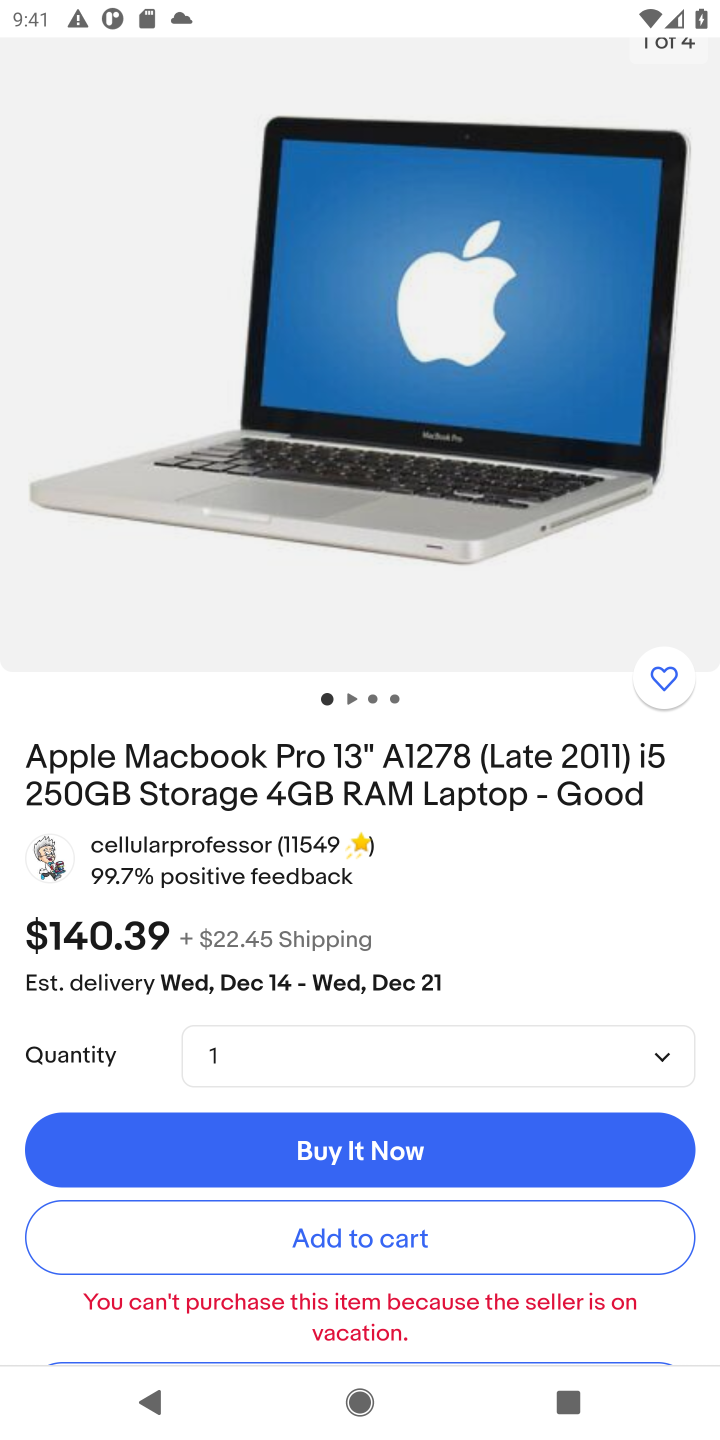
Step 26: task complete